Your task to perform on an android device: clear history in the chrome app Image 0: 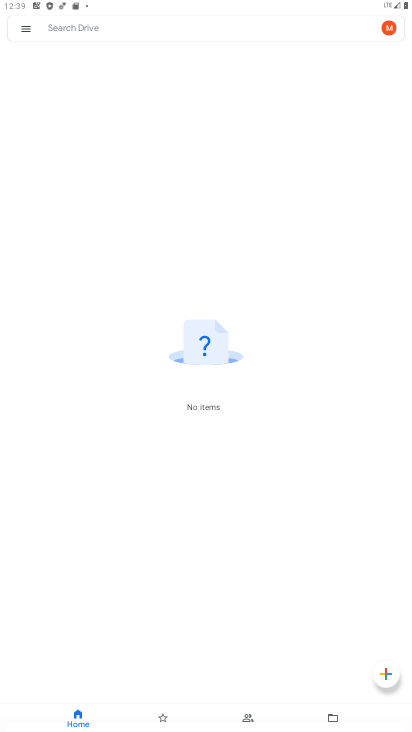
Step 0: press home button
Your task to perform on an android device: clear history in the chrome app Image 1: 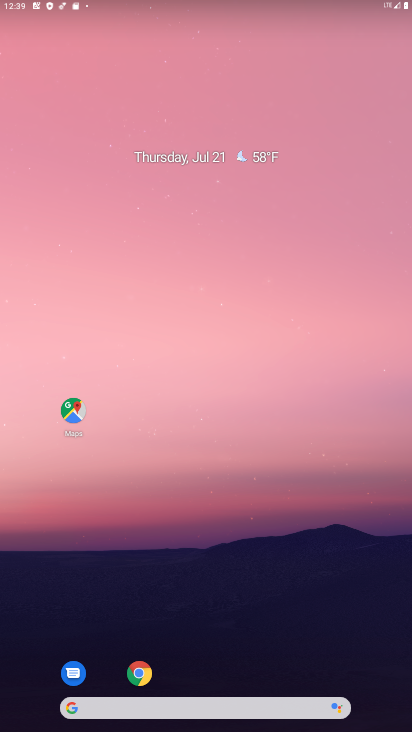
Step 1: click (141, 660)
Your task to perform on an android device: clear history in the chrome app Image 2: 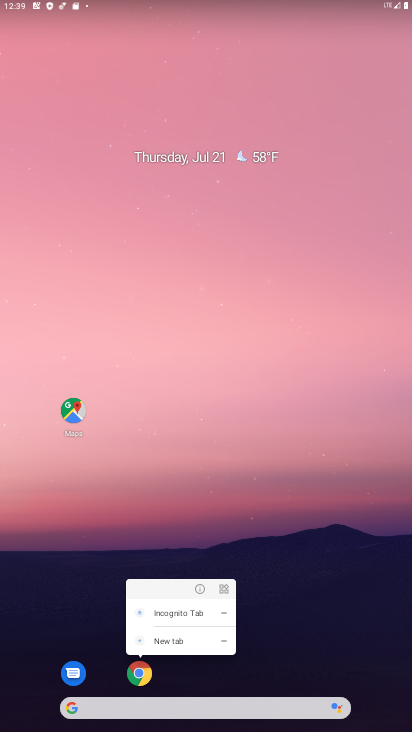
Step 2: click (137, 681)
Your task to perform on an android device: clear history in the chrome app Image 3: 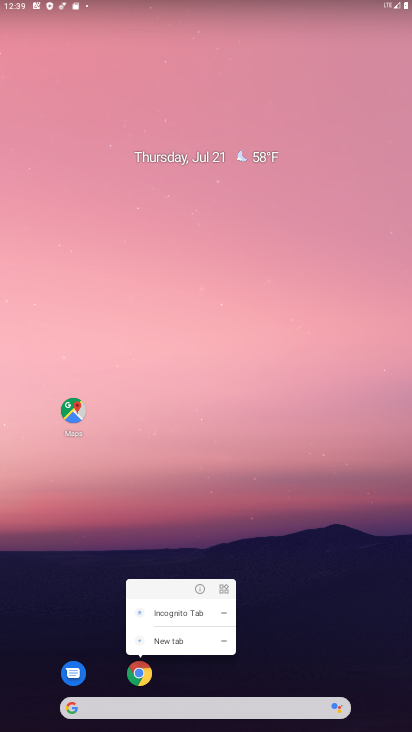
Step 3: click (146, 677)
Your task to perform on an android device: clear history in the chrome app Image 4: 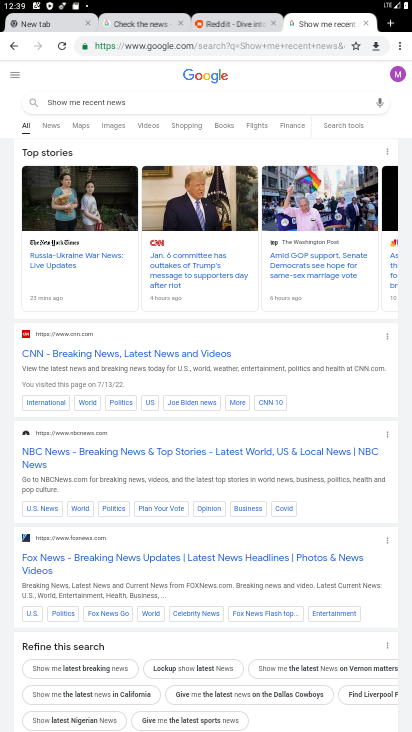
Step 4: click (399, 50)
Your task to perform on an android device: clear history in the chrome app Image 5: 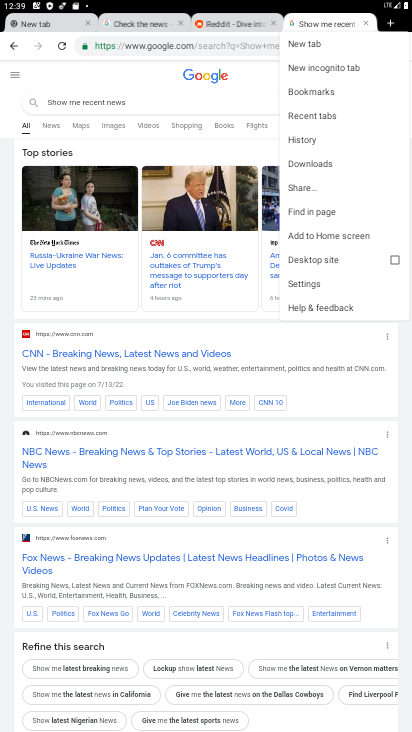
Step 5: click (326, 279)
Your task to perform on an android device: clear history in the chrome app Image 6: 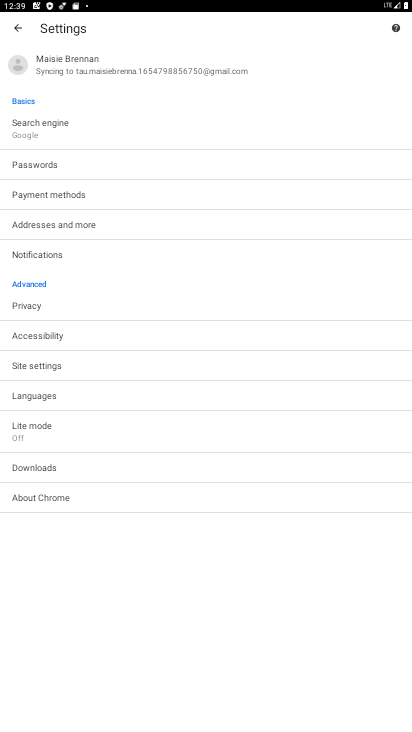
Step 6: click (12, 32)
Your task to perform on an android device: clear history in the chrome app Image 7: 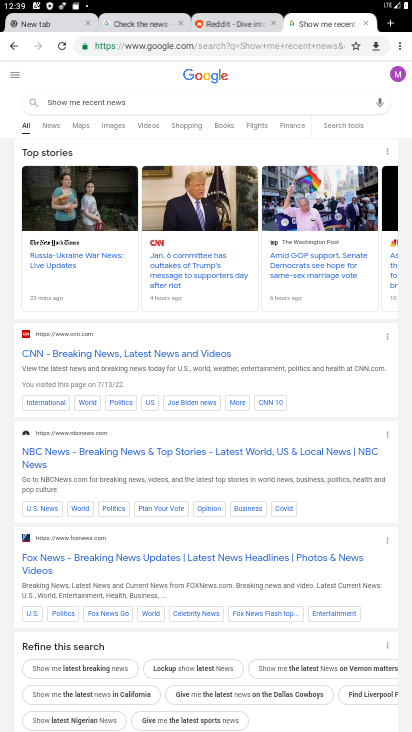
Step 7: click (404, 44)
Your task to perform on an android device: clear history in the chrome app Image 8: 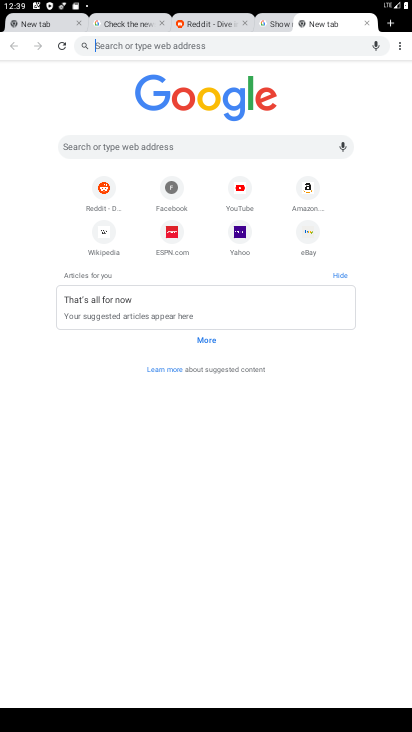
Step 8: click (400, 40)
Your task to perform on an android device: clear history in the chrome app Image 9: 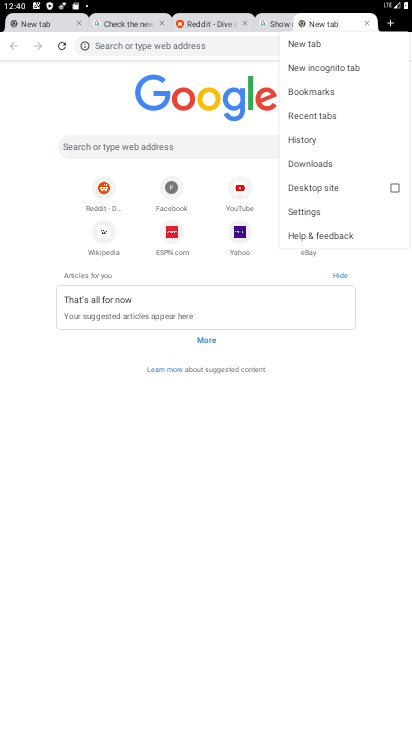
Step 9: click (303, 135)
Your task to perform on an android device: clear history in the chrome app Image 10: 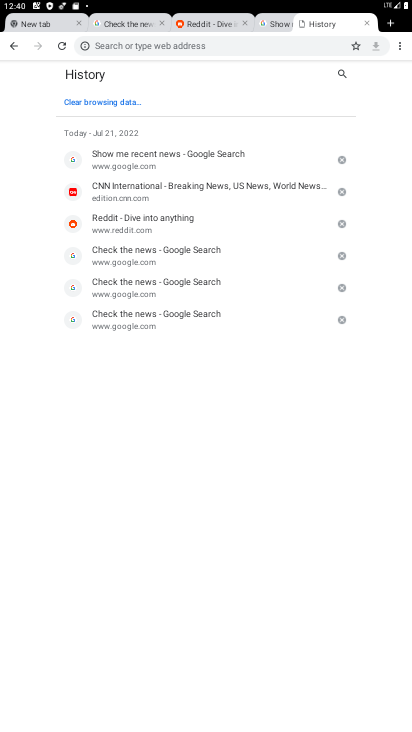
Step 10: click (102, 100)
Your task to perform on an android device: clear history in the chrome app Image 11: 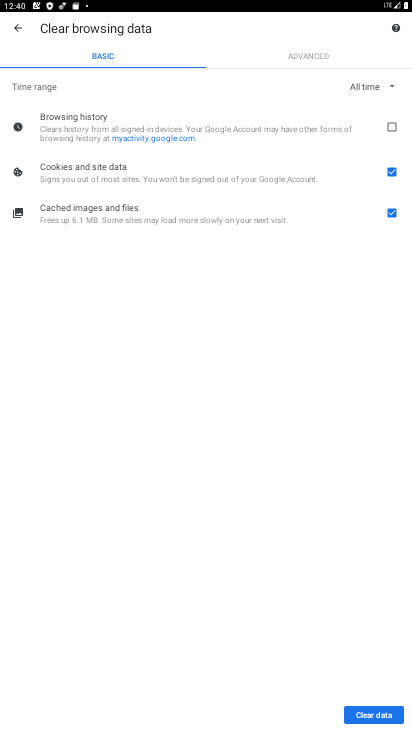
Step 11: click (348, 712)
Your task to perform on an android device: clear history in the chrome app Image 12: 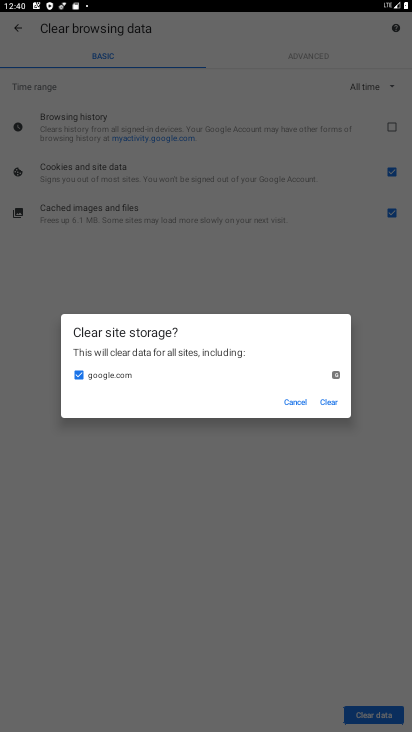
Step 12: click (303, 399)
Your task to perform on an android device: clear history in the chrome app Image 13: 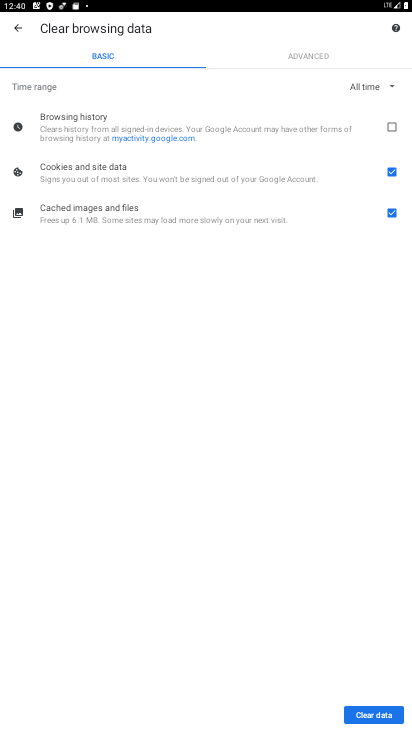
Step 13: click (406, 108)
Your task to perform on an android device: clear history in the chrome app Image 14: 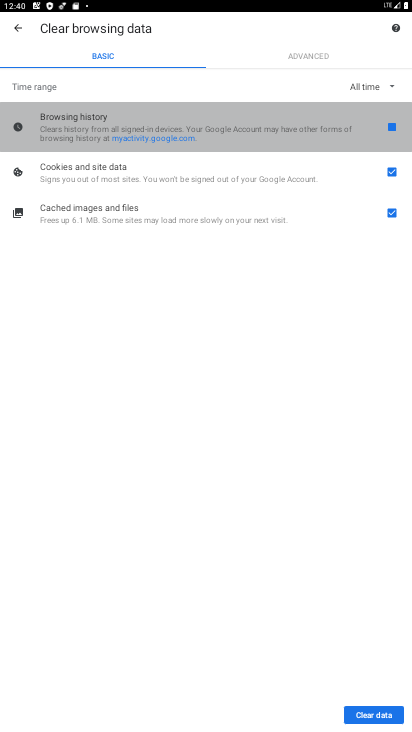
Step 14: click (397, 134)
Your task to perform on an android device: clear history in the chrome app Image 15: 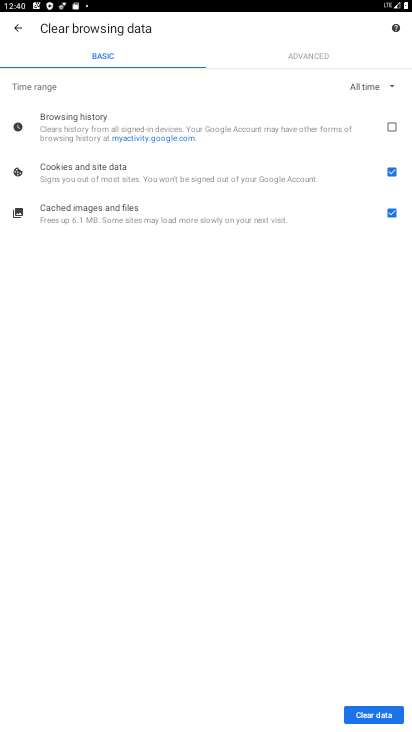
Step 15: click (361, 713)
Your task to perform on an android device: clear history in the chrome app Image 16: 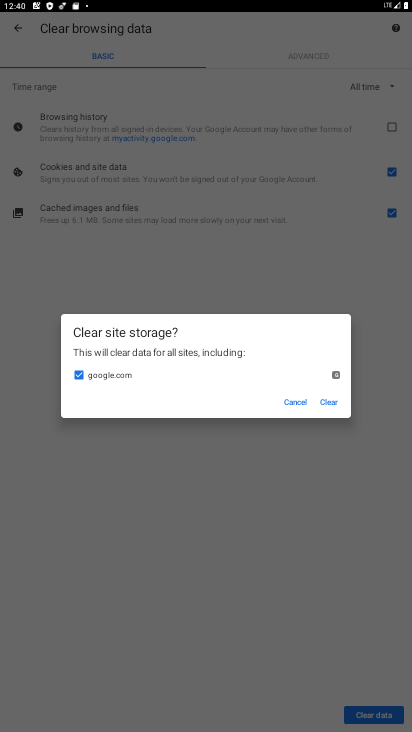
Step 16: click (292, 411)
Your task to perform on an android device: clear history in the chrome app Image 17: 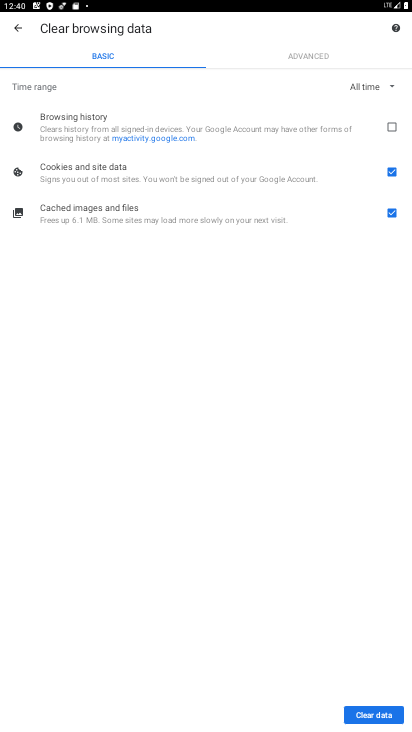
Step 17: click (390, 116)
Your task to perform on an android device: clear history in the chrome app Image 18: 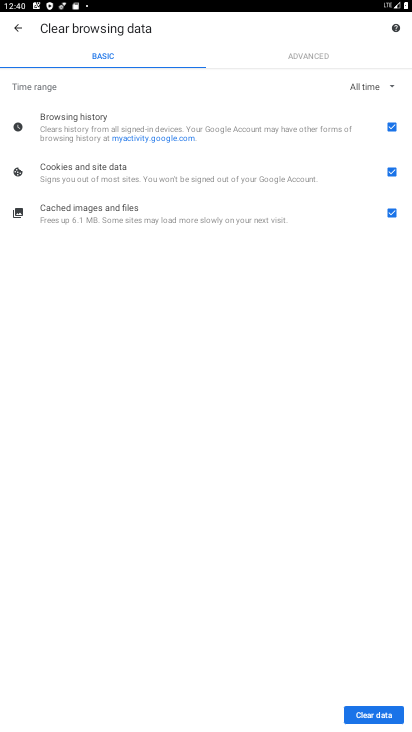
Step 18: click (361, 715)
Your task to perform on an android device: clear history in the chrome app Image 19: 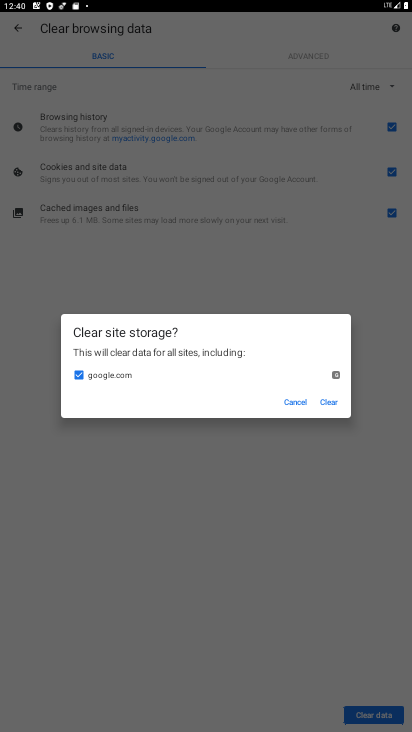
Step 19: click (335, 400)
Your task to perform on an android device: clear history in the chrome app Image 20: 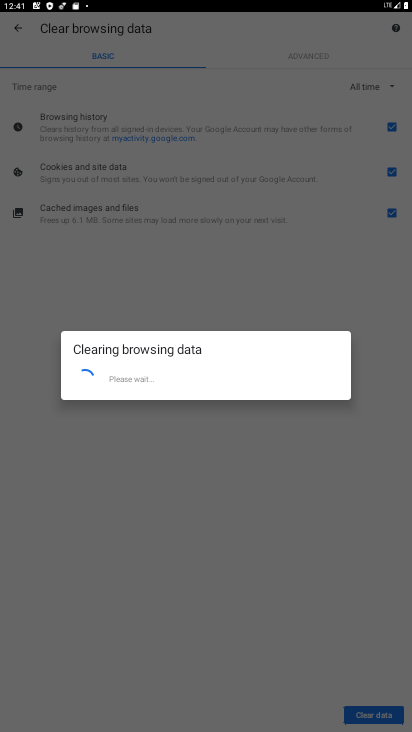
Step 20: click (325, 434)
Your task to perform on an android device: clear history in the chrome app Image 21: 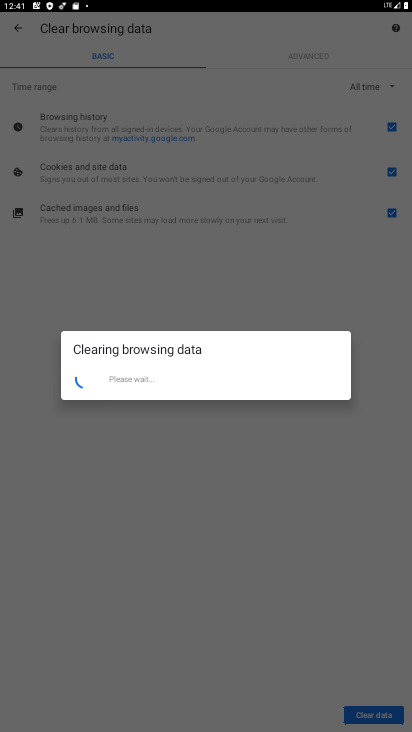
Step 21: task complete